Your task to perform on an android device: turn on notifications settings in the gmail app Image 0: 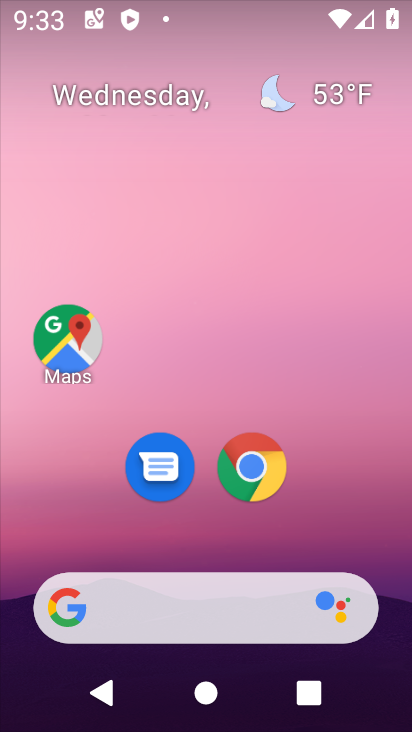
Step 0: press home button
Your task to perform on an android device: turn on notifications settings in the gmail app Image 1: 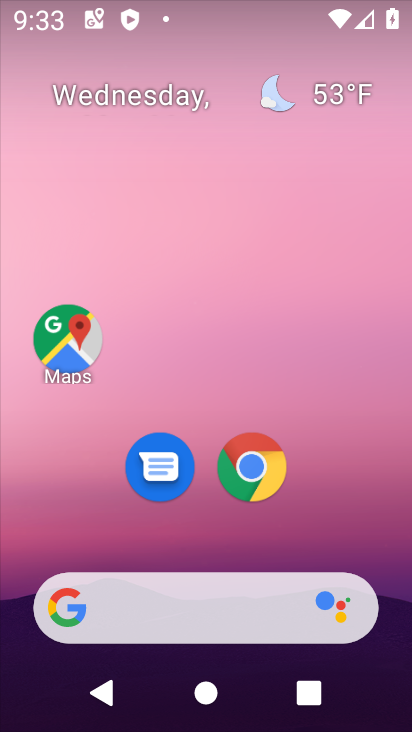
Step 1: drag from (337, 202) to (370, 4)
Your task to perform on an android device: turn on notifications settings in the gmail app Image 2: 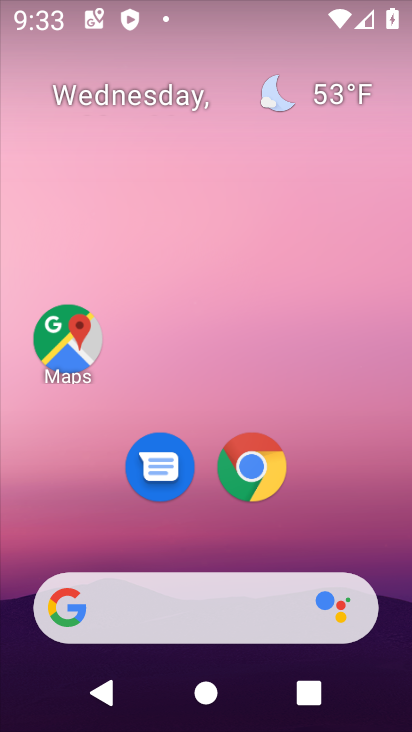
Step 2: drag from (326, 497) to (326, 2)
Your task to perform on an android device: turn on notifications settings in the gmail app Image 3: 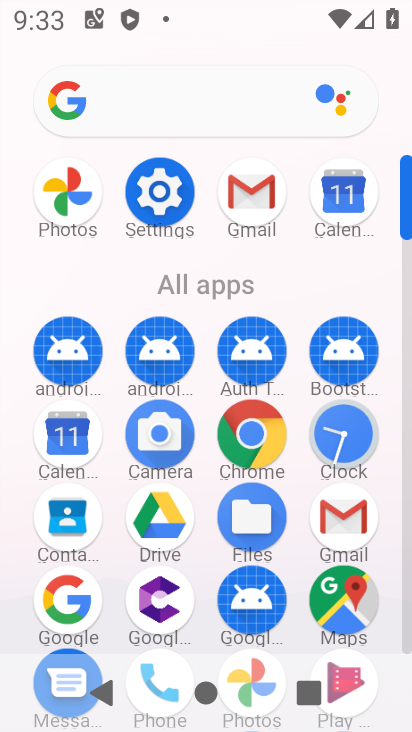
Step 3: click (271, 212)
Your task to perform on an android device: turn on notifications settings in the gmail app Image 4: 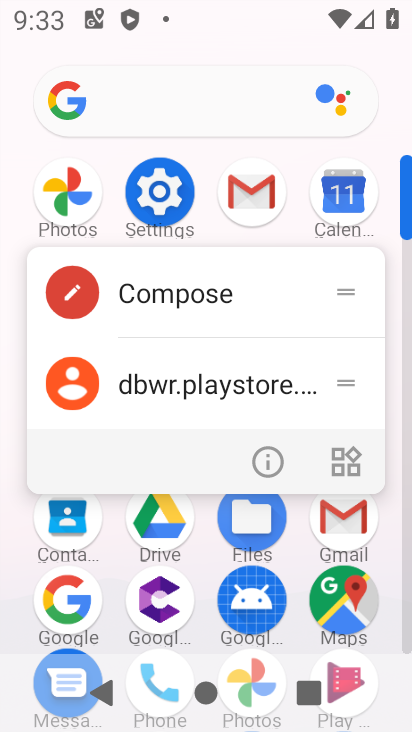
Step 4: click (245, 462)
Your task to perform on an android device: turn on notifications settings in the gmail app Image 5: 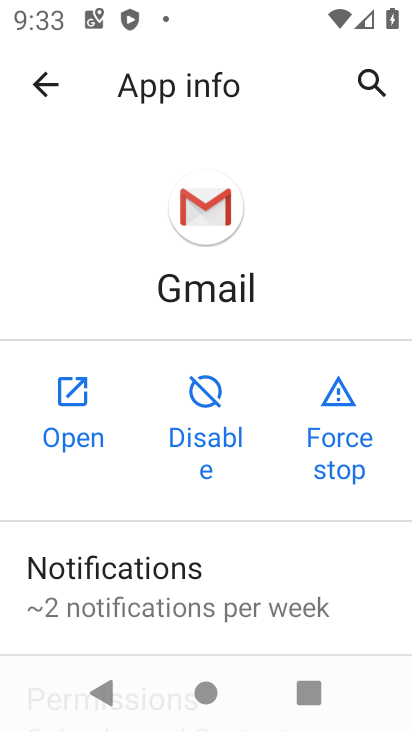
Step 5: click (284, 605)
Your task to perform on an android device: turn on notifications settings in the gmail app Image 6: 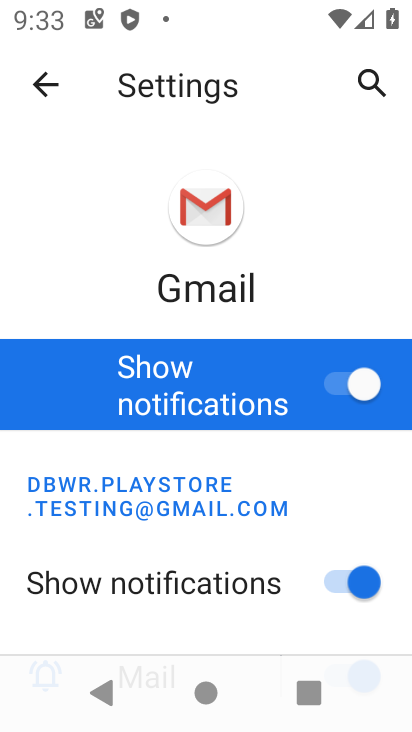
Step 6: task complete